Your task to perform on an android device: toggle data saver in the chrome app Image 0: 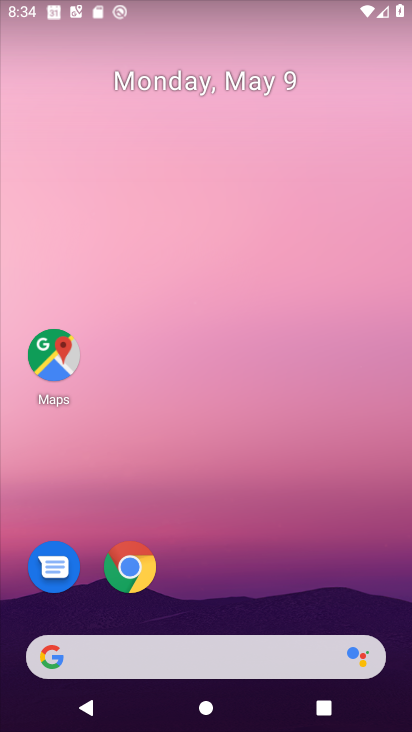
Step 0: drag from (189, 615) to (240, 154)
Your task to perform on an android device: toggle data saver in the chrome app Image 1: 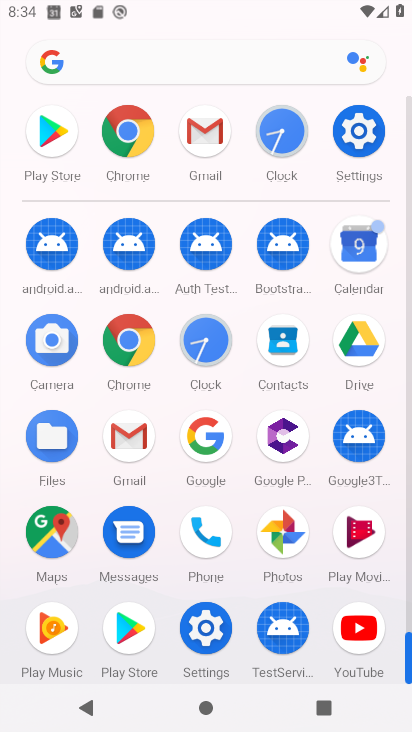
Step 1: click (128, 339)
Your task to perform on an android device: toggle data saver in the chrome app Image 2: 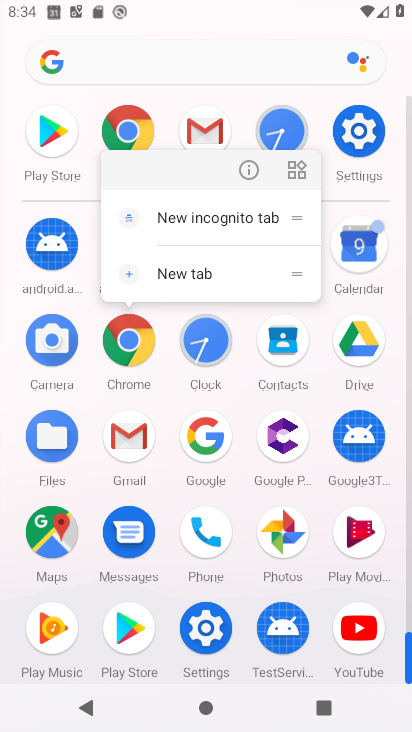
Step 2: click (249, 170)
Your task to perform on an android device: toggle data saver in the chrome app Image 3: 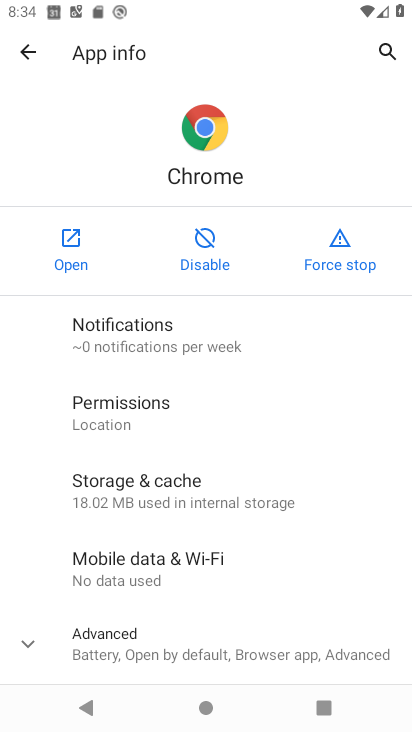
Step 3: click (60, 254)
Your task to perform on an android device: toggle data saver in the chrome app Image 4: 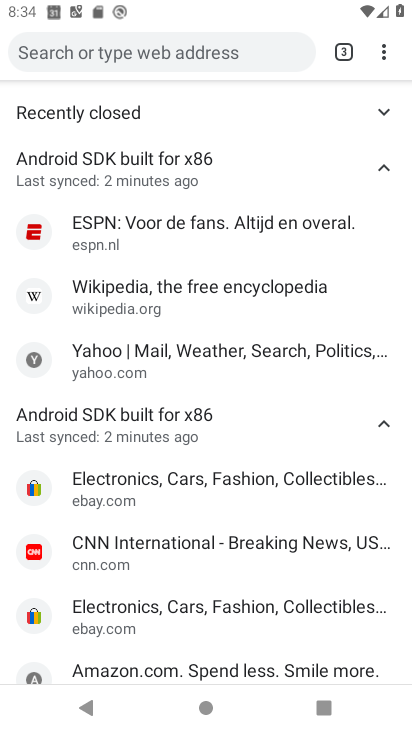
Step 4: drag from (385, 48) to (224, 439)
Your task to perform on an android device: toggle data saver in the chrome app Image 5: 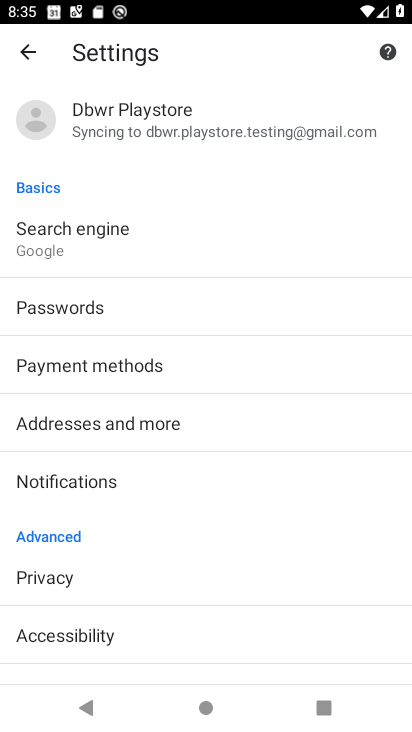
Step 5: drag from (387, 45) to (179, 45)
Your task to perform on an android device: toggle data saver in the chrome app Image 6: 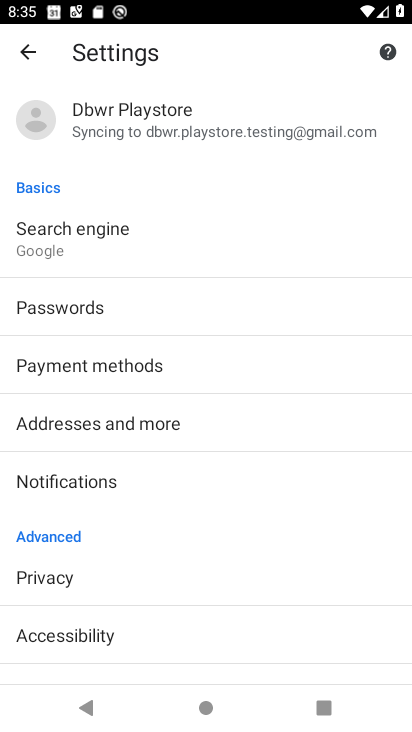
Step 6: drag from (179, 416) to (290, 16)
Your task to perform on an android device: toggle data saver in the chrome app Image 7: 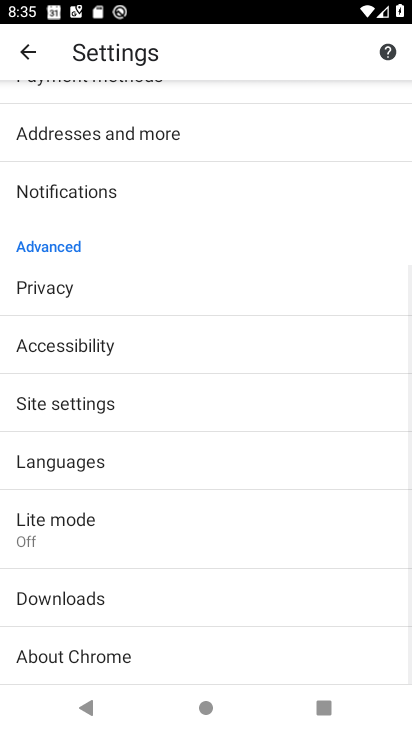
Step 7: click (78, 525)
Your task to perform on an android device: toggle data saver in the chrome app Image 8: 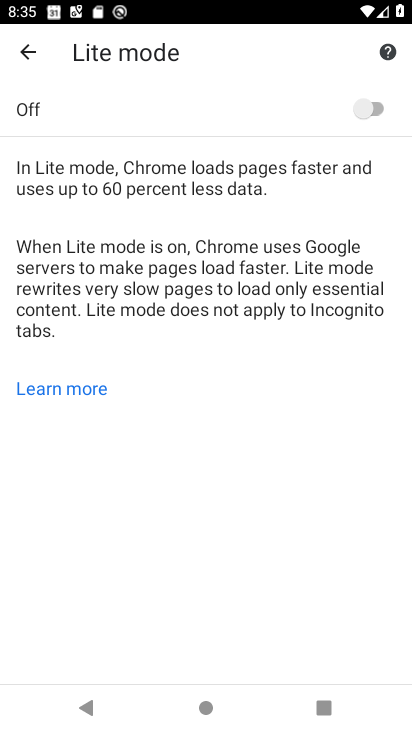
Step 8: click (373, 117)
Your task to perform on an android device: toggle data saver in the chrome app Image 9: 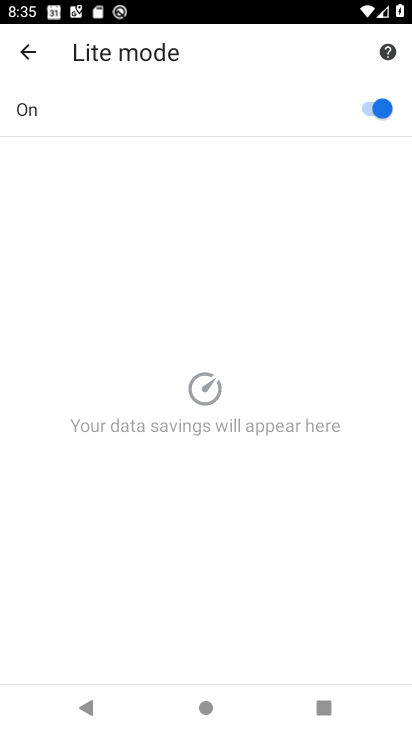
Step 9: task complete